Your task to perform on an android device: change notification settings in the gmail app Image 0: 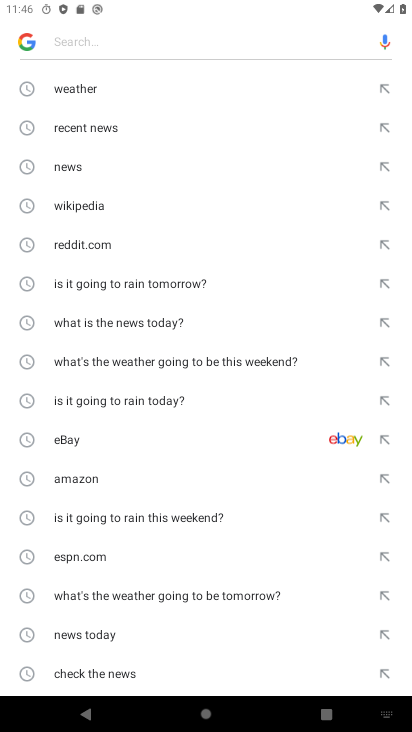
Step 0: press home button
Your task to perform on an android device: change notification settings in the gmail app Image 1: 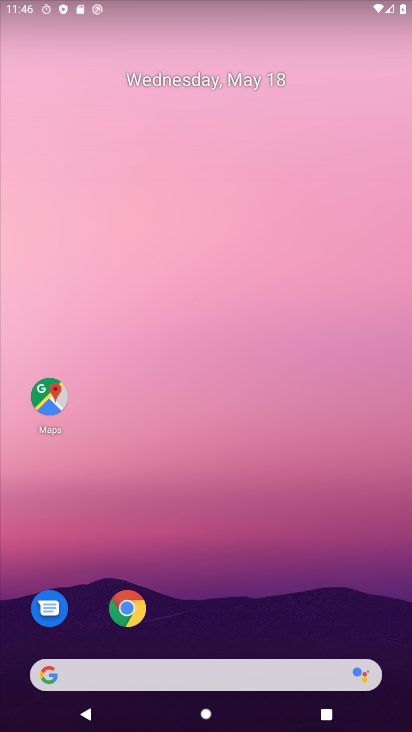
Step 1: drag from (268, 633) to (216, 240)
Your task to perform on an android device: change notification settings in the gmail app Image 2: 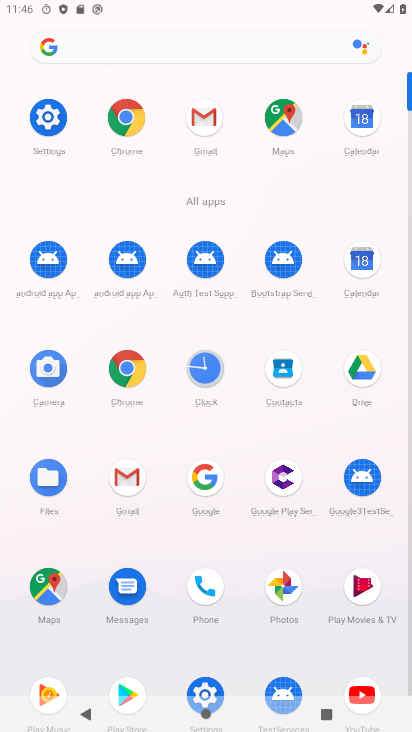
Step 2: click (211, 123)
Your task to perform on an android device: change notification settings in the gmail app Image 3: 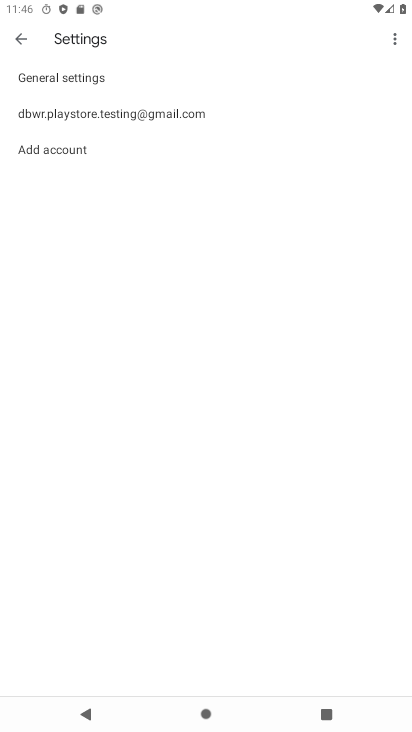
Step 3: click (204, 117)
Your task to perform on an android device: change notification settings in the gmail app Image 4: 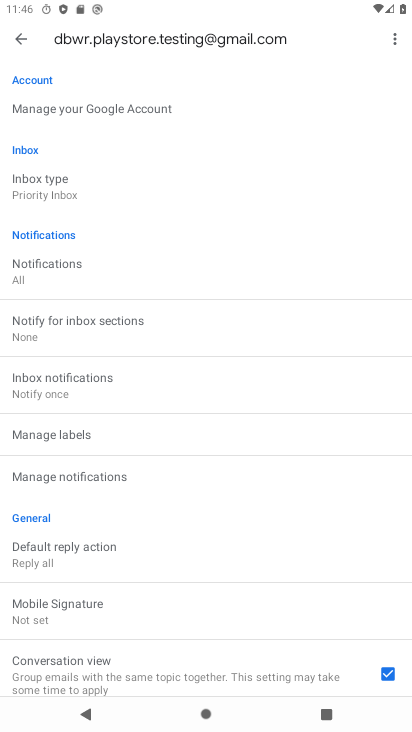
Step 4: click (187, 490)
Your task to perform on an android device: change notification settings in the gmail app Image 5: 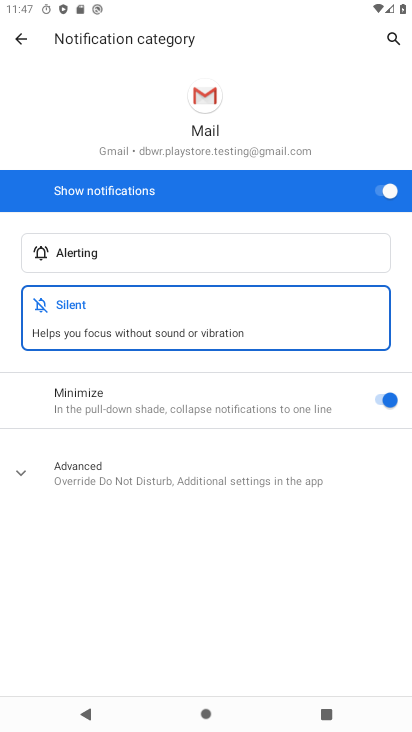
Step 5: click (322, 260)
Your task to perform on an android device: change notification settings in the gmail app Image 6: 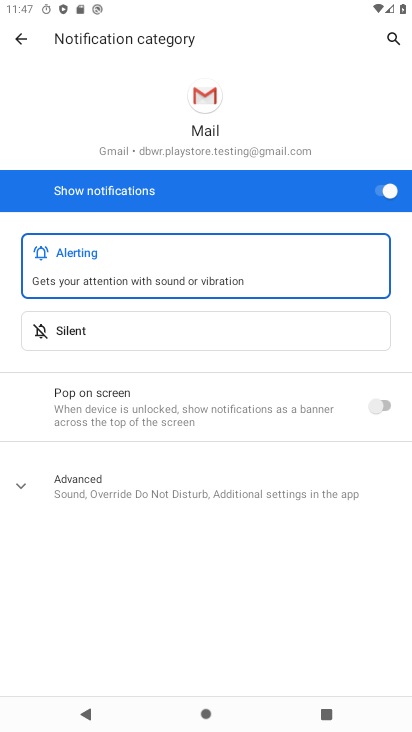
Step 6: click (382, 405)
Your task to perform on an android device: change notification settings in the gmail app Image 7: 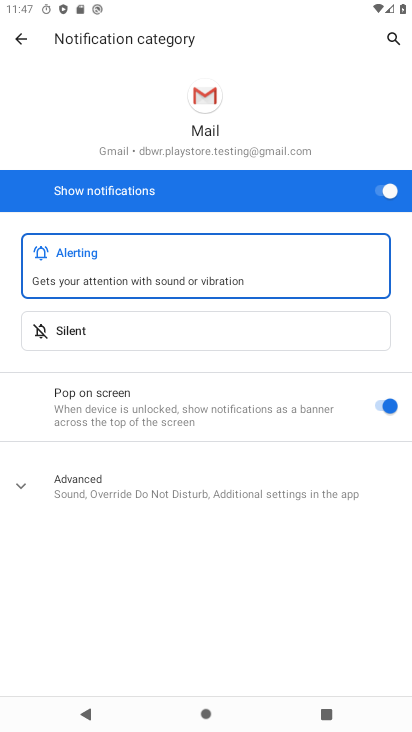
Step 7: task complete